Your task to perform on an android device: move an email to a new category in the gmail app Image 0: 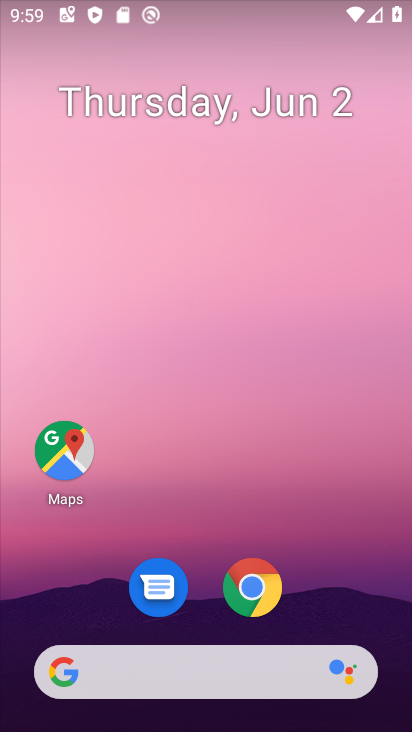
Step 0: drag from (360, 574) to (318, 241)
Your task to perform on an android device: move an email to a new category in the gmail app Image 1: 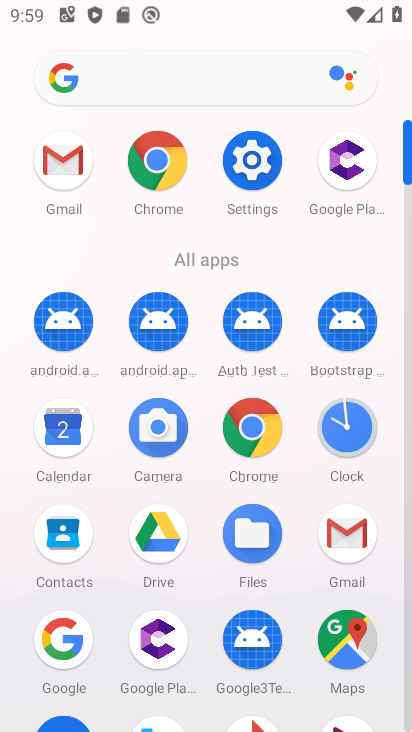
Step 1: click (329, 537)
Your task to perform on an android device: move an email to a new category in the gmail app Image 2: 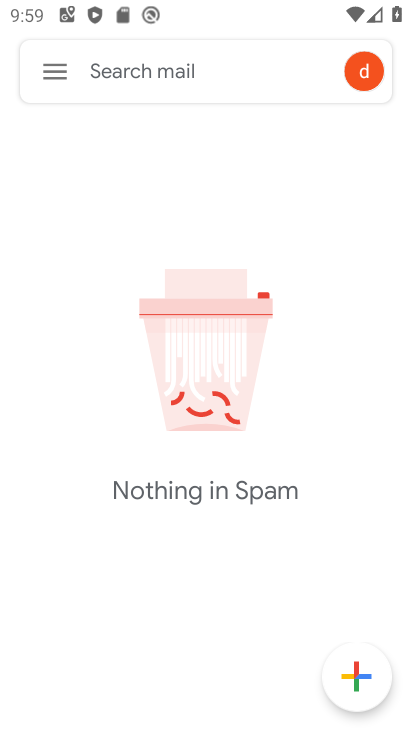
Step 2: click (67, 81)
Your task to perform on an android device: move an email to a new category in the gmail app Image 3: 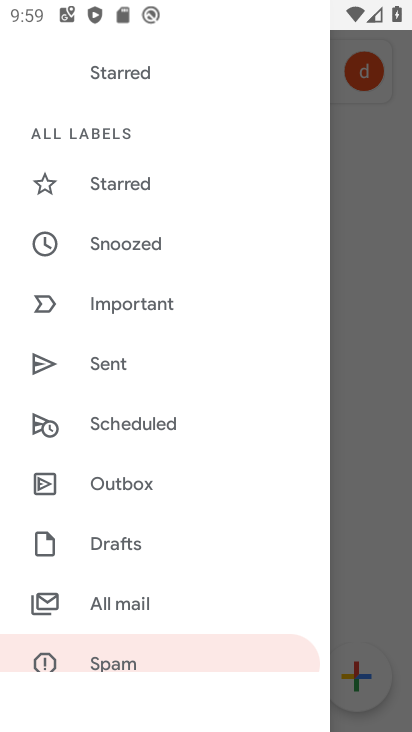
Step 3: click (145, 596)
Your task to perform on an android device: move an email to a new category in the gmail app Image 4: 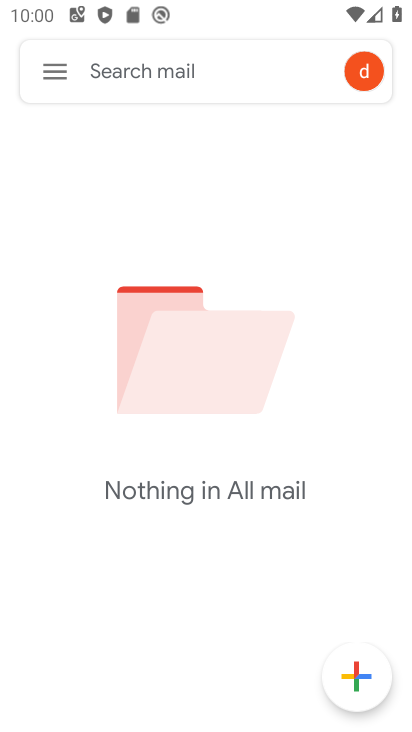
Step 4: task complete